Your task to perform on an android device: Open Yahoo.com Image 0: 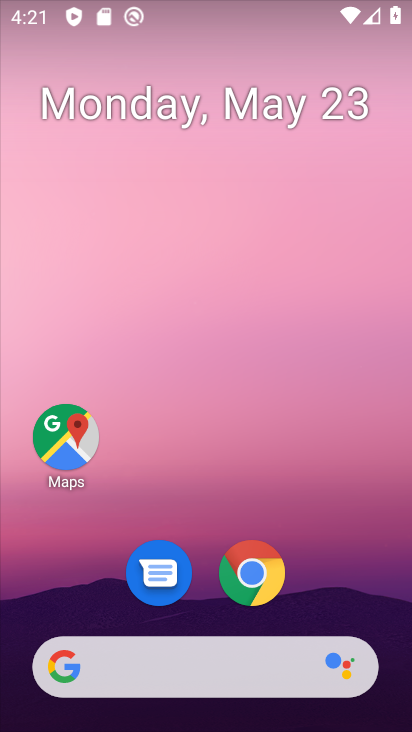
Step 0: click (254, 576)
Your task to perform on an android device: Open Yahoo.com Image 1: 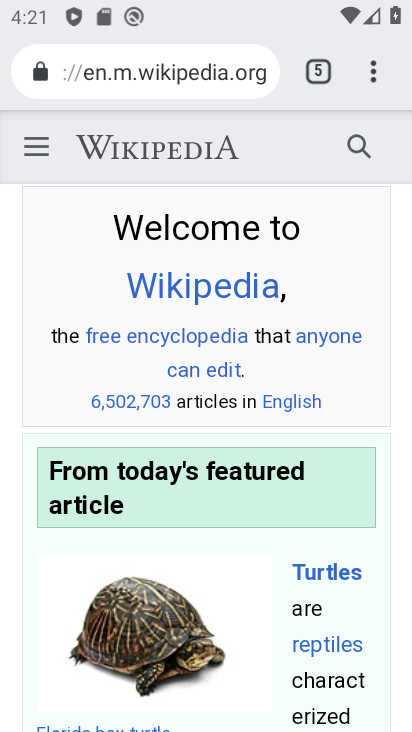
Step 1: click (372, 77)
Your task to perform on an android device: Open Yahoo.com Image 2: 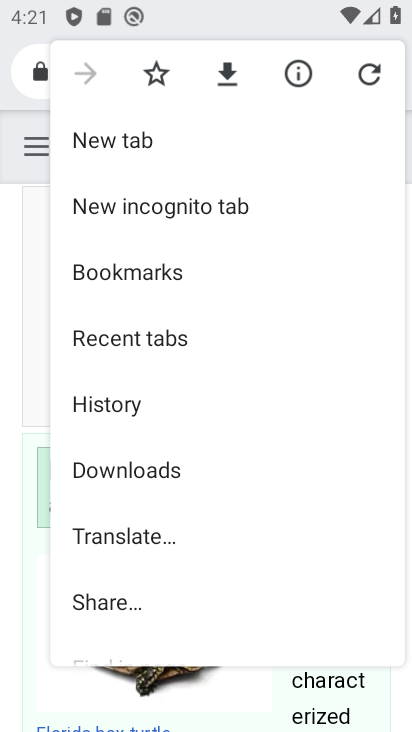
Step 2: click (110, 130)
Your task to perform on an android device: Open Yahoo.com Image 3: 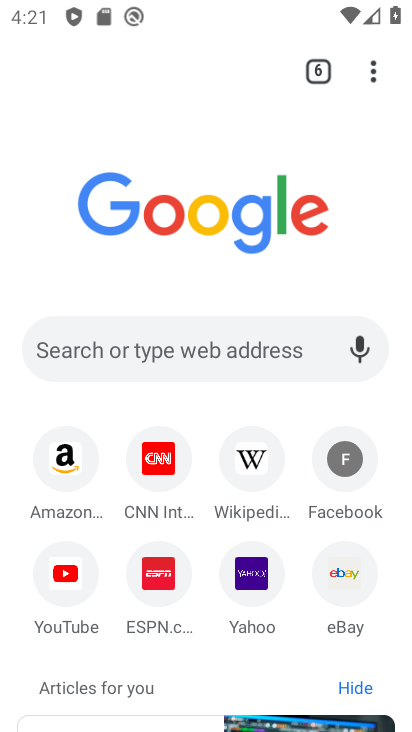
Step 3: click (260, 565)
Your task to perform on an android device: Open Yahoo.com Image 4: 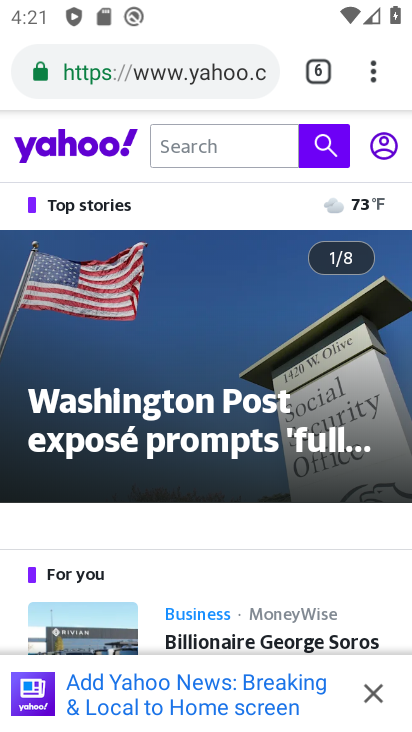
Step 4: task complete